Your task to perform on an android device: turn off location Image 0: 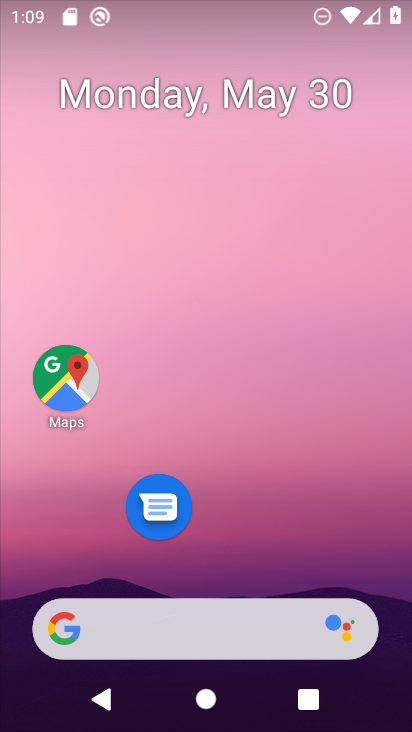
Step 0: drag from (250, 560) to (287, 162)
Your task to perform on an android device: turn off location Image 1: 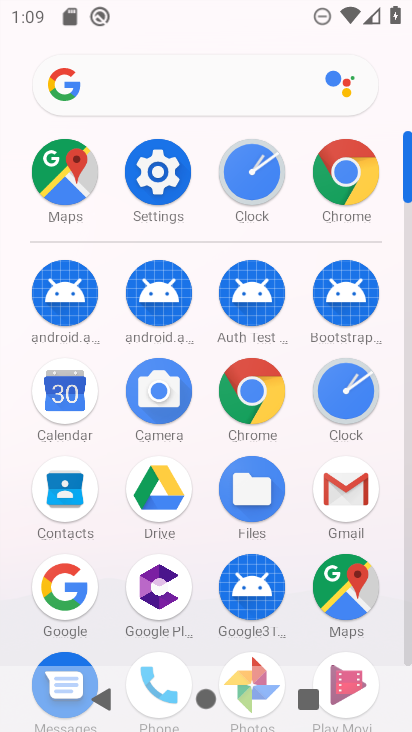
Step 1: click (159, 172)
Your task to perform on an android device: turn off location Image 2: 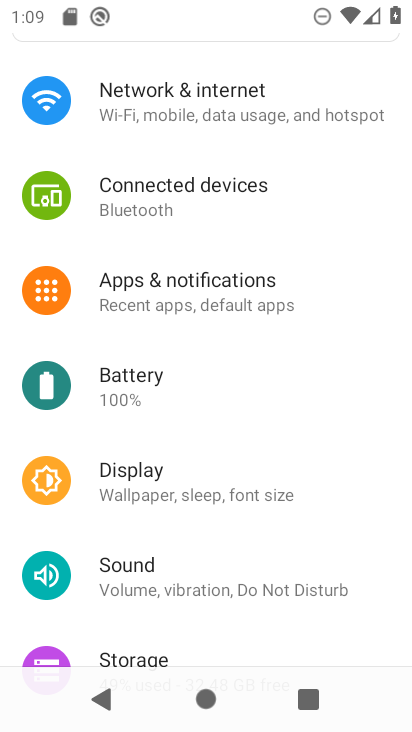
Step 2: drag from (294, 555) to (301, 225)
Your task to perform on an android device: turn off location Image 3: 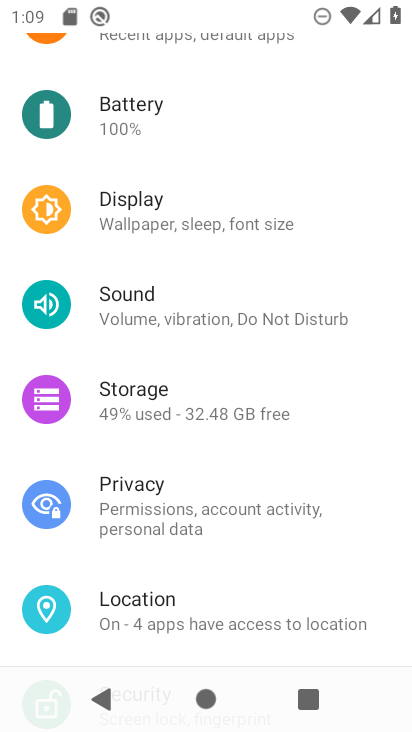
Step 3: click (144, 620)
Your task to perform on an android device: turn off location Image 4: 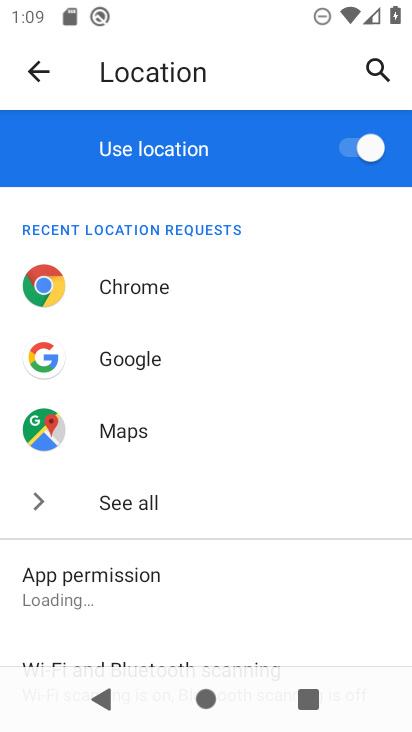
Step 4: click (356, 149)
Your task to perform on an android device: turn off location Image 5: 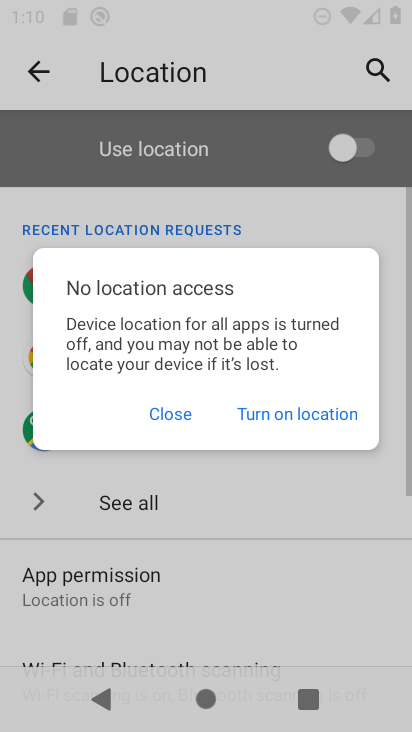
Step 5: task complete